Your task to perform on an android device: create a new album in the google photos Image 0: 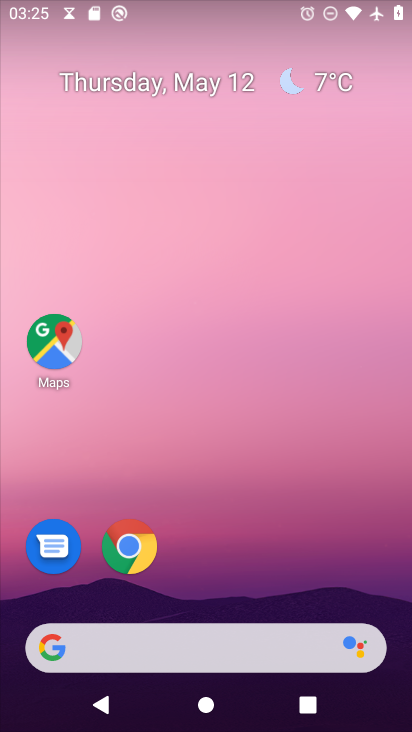
Step 0: drag from (194, 643) to (334, 187)
Your task to perform on an android device: create a new album in the google photos Image 1: 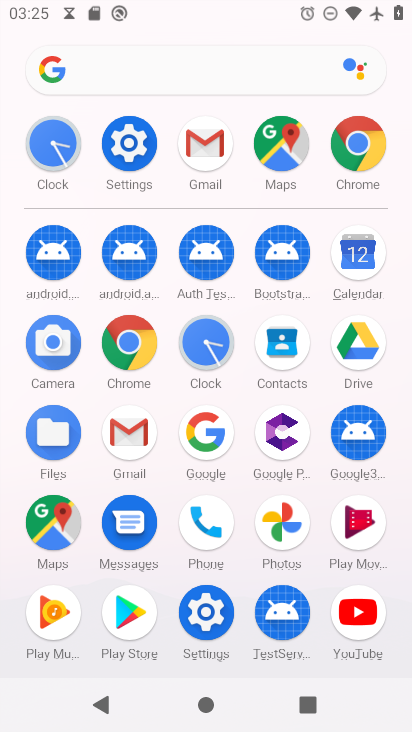
Step 1: click (275, 518)
Your task to perform on an android device: create a new album in the google photos Image 2: 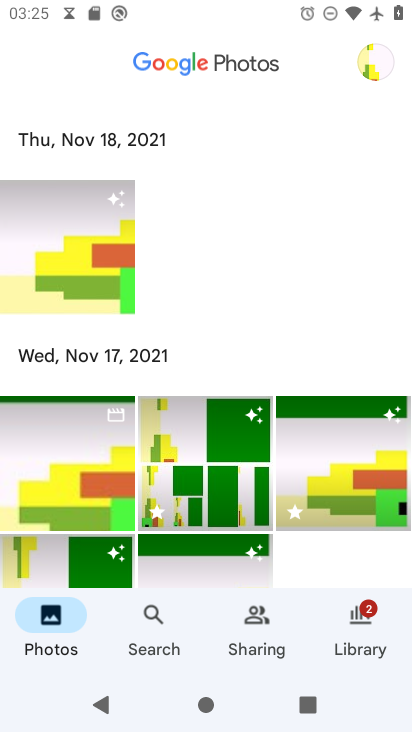
Step 2: click (353, 643)
Your task to perform on an android device: create a new album in the google photos Image 3: 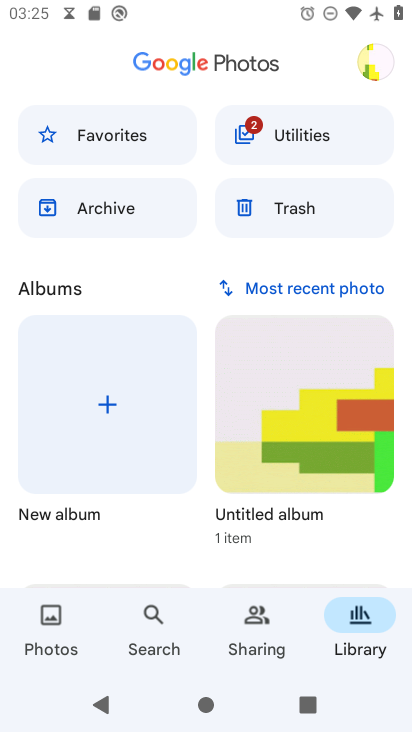
Step 3: click (114, 399)
Your task to perform on an android device: create a new album in the google photos Image 4: 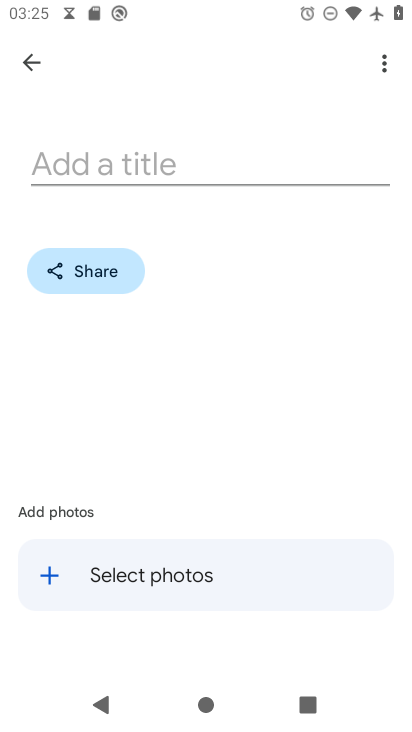
Step 4: click (140, 570)
Your task to perform on an android device: create a new album in the google photos Image 5: 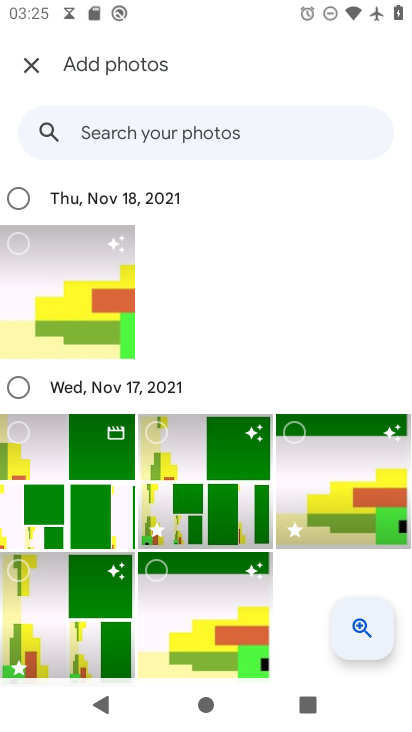
Step 5: click (17, 241)
Your task to perform on an android device: create a new album in the google photos Image 6: 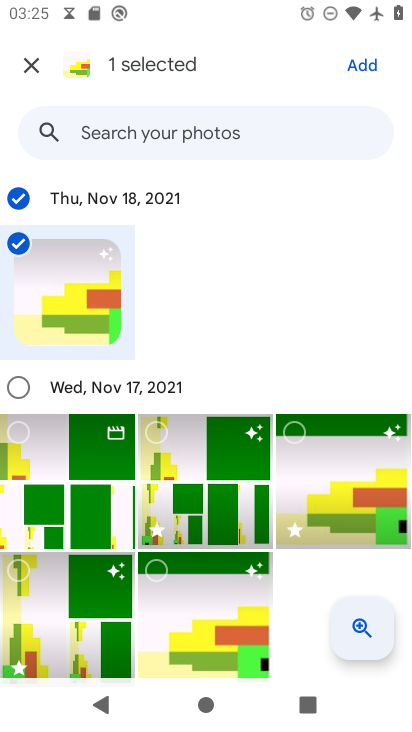
Step 6: click (17, 436)
Your task to perform on an android device: create a new album in the google photos Image 7: 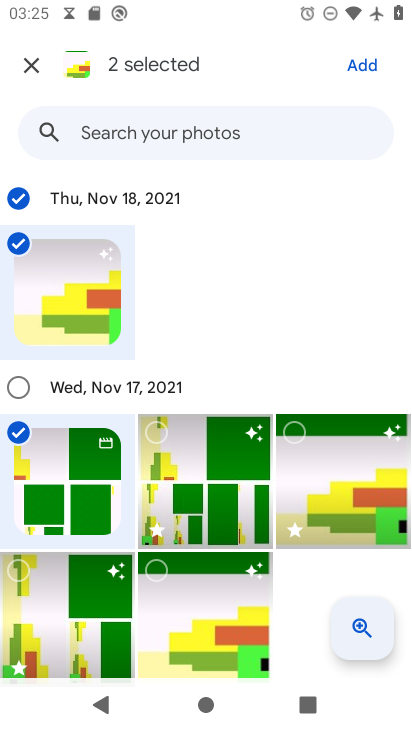
Step 7: click (198, 433)
Your task to perform on an android device: create a new album in the google photos Image 8: 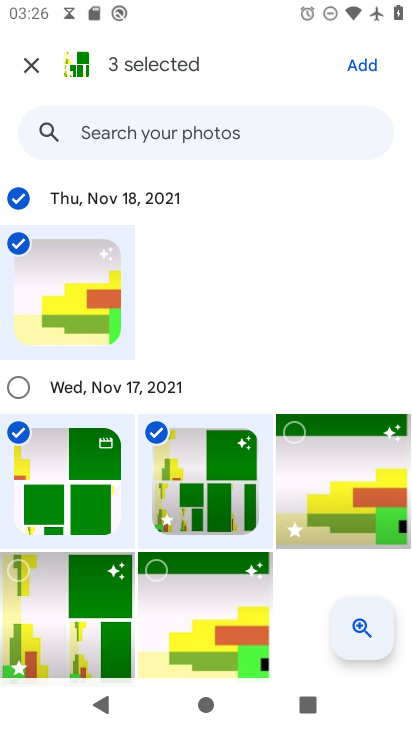
Step 8: click (372, 61)
Your task to perform on an android device: create a new album in the google photos Image 9: 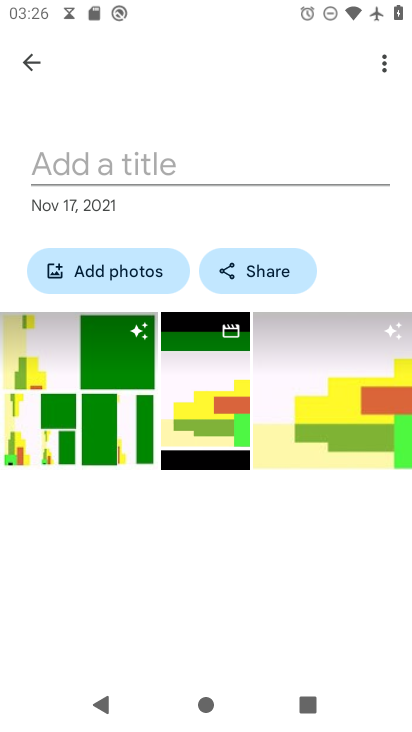
Step 9: task complete